Your task to perform on an android device: Open Reddit.com Image 0: 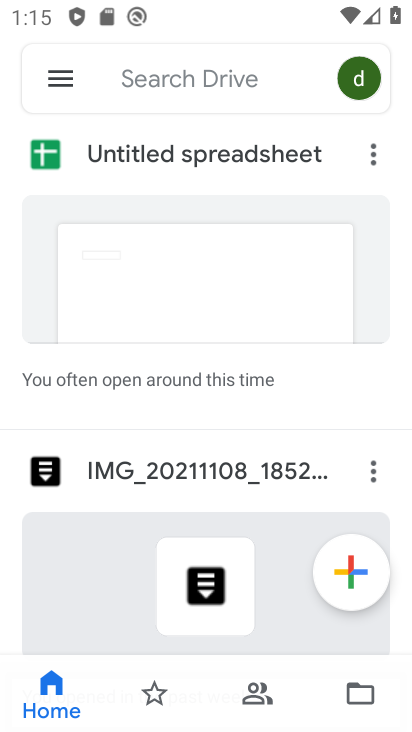
Step 0: press home button
Your task to perform on an android device: Open Reddit.com Image 1: 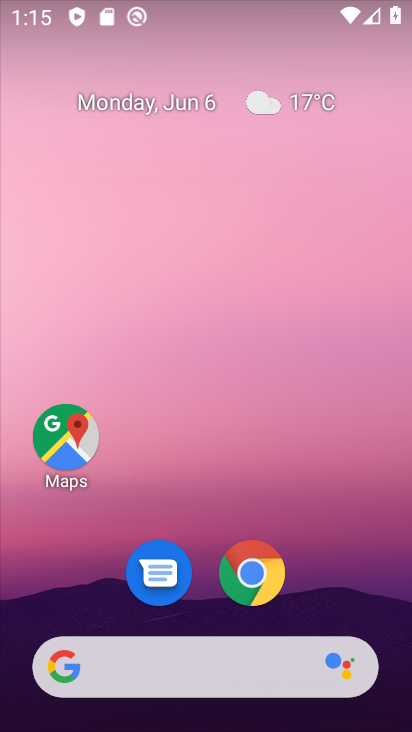
Step 1: drag from (340, 562) to (313, 119)
Your task to perform on an android device: Open Reddit.com Image 2: 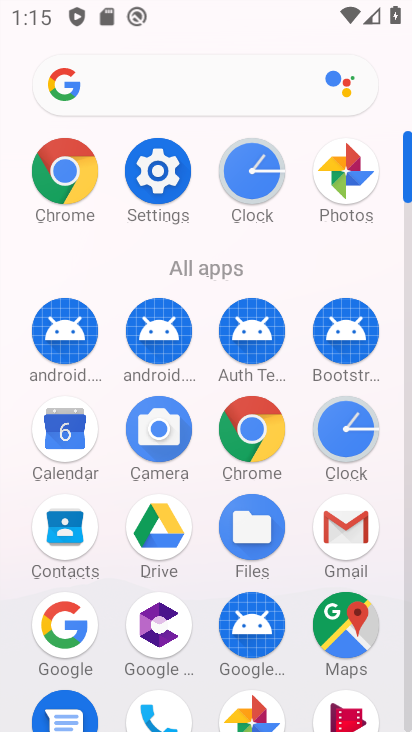
Step 2: click (276, 426)
Your task to perform on an android device: Open Reddit.com Image 3: 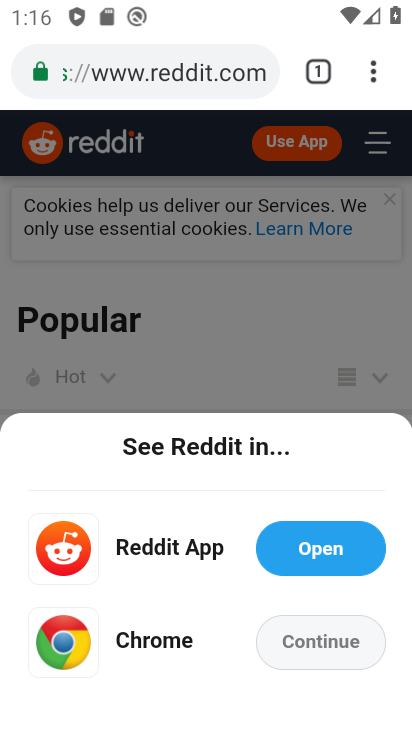
Step 3: task complete